Your task to perform on an android device: Open Google Chrome and click the shortcut for Amazon.com Image 0: 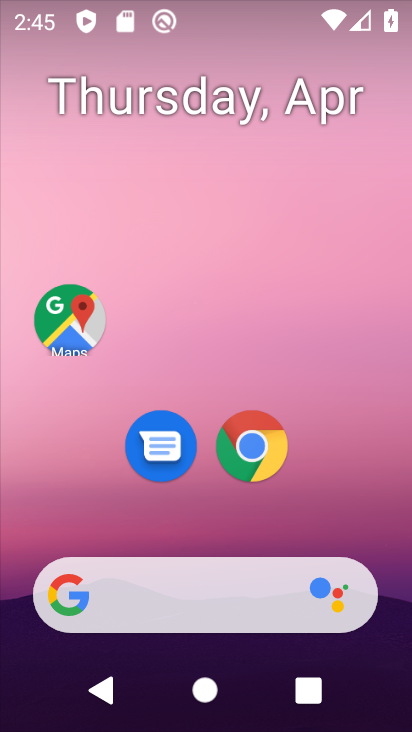
Step 0: drag from (241, 634) to (274, 178)
Your task to perform on an android device: Open Google Chrome and click the shortcut for Amazon.com Image 1: 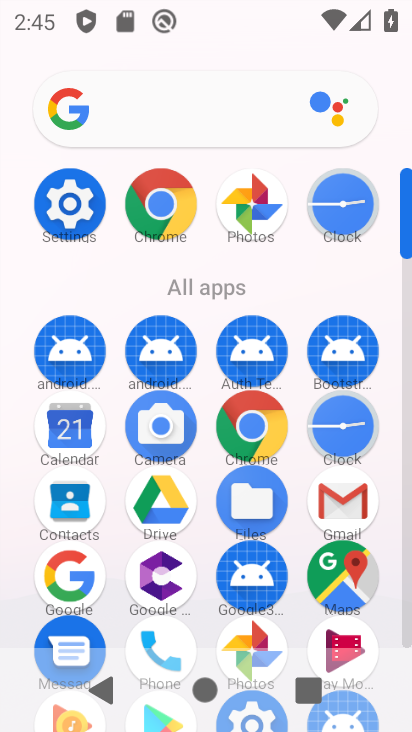
Step 1: click (180, 205)
Your task to perform on an android device: Open Google Chrome and click the shortcut for Amazon.com Image 2: 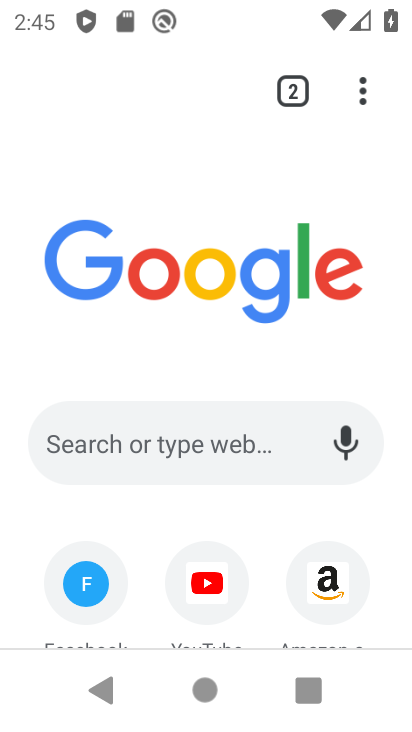
Step 2: click (323, 593)
Your task to perform on an android device: Open Google Chrome and click the shortcut for Amazon.com Image 3: 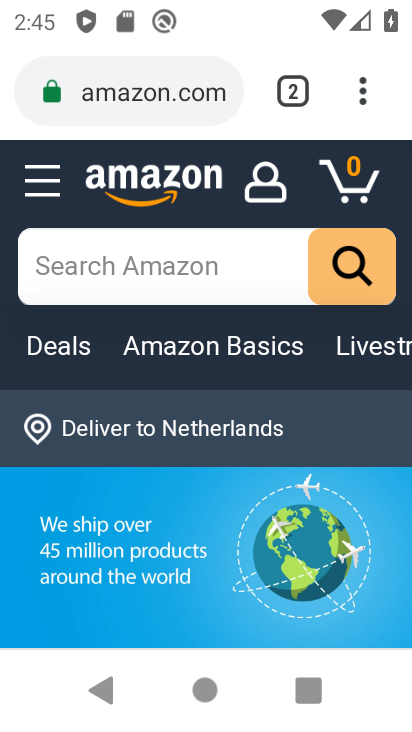
Step 3: click (364, 100)
Your task to perform on an android device: Open Google Chrome and click the shortcut for Amazon.com Image 4: 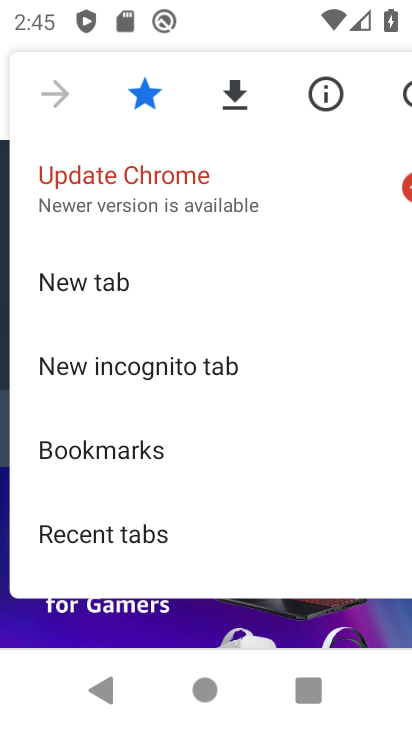
Step 4: drag from (127, 479) to (156, 123)
Your task to perform on an android device: Open Google Chrome and click the shortcut for Amazon.com Image 5: 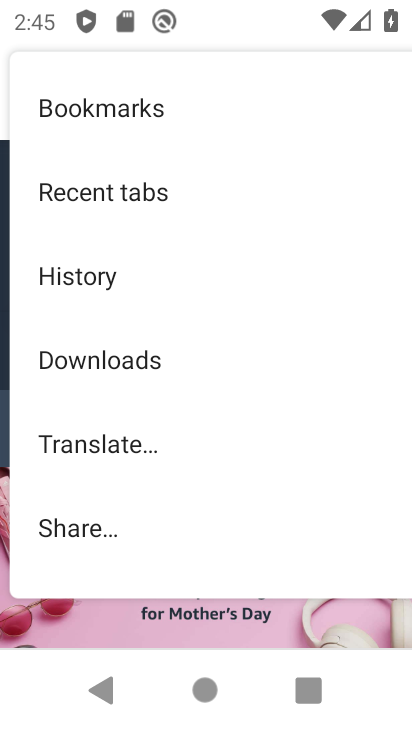
Step 5: drag from (141, 340) to (201, 132)
Your task to perform on an android device: Open Google Chrome and click the shortcut for Amazon.com Image 6: 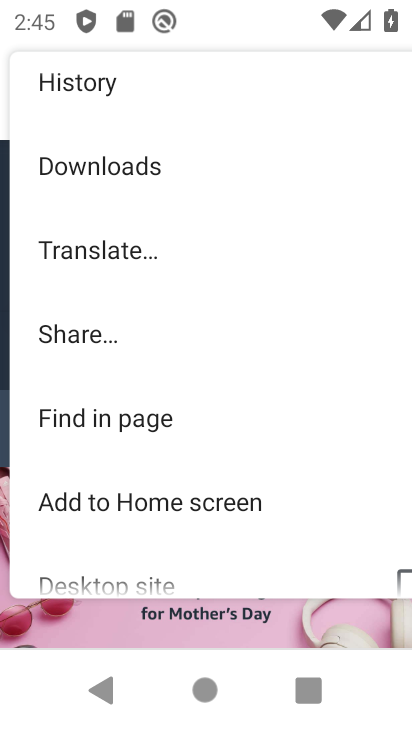
Step 6: click (138, 506)
Your task to perform on an android device: Open Google Chrome and click the shortcut for Amazon.com Image 7: 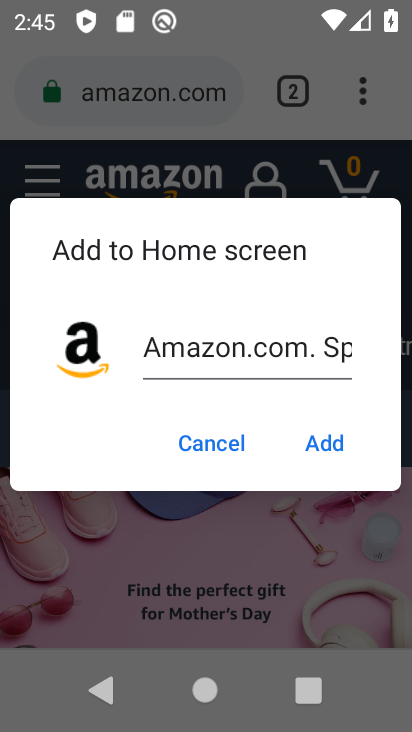
Step 7: click (329, 433)
Your task to perform on an android device: Open Google Chrome and click the shortcut for Amazon.com Image 8: 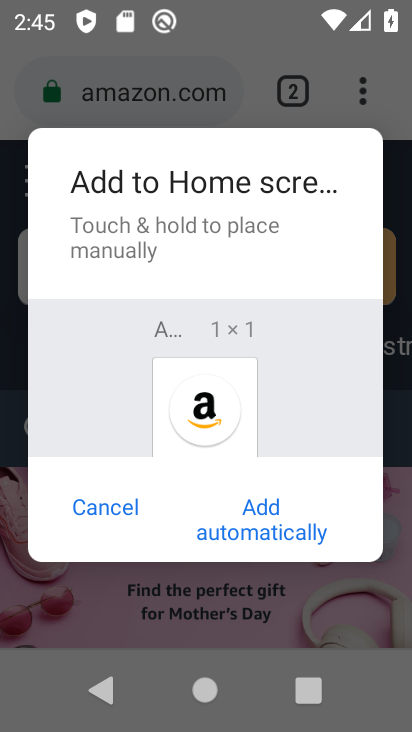
Step 8: task complete